Your task to perform on an android device: clear all cookies in the chrome app Image 0: 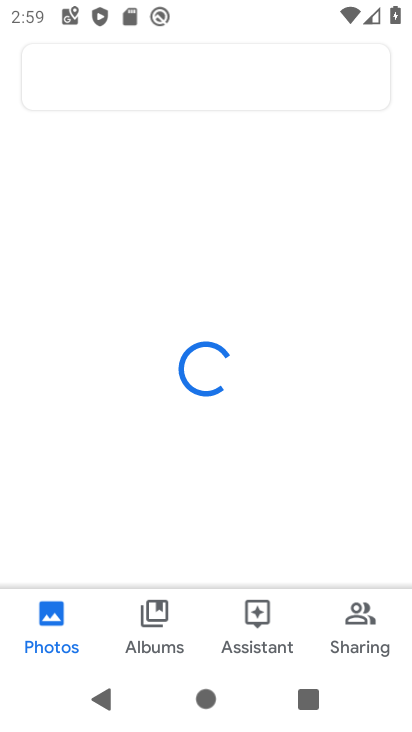
Step 0: press home button
Your task to perform on an android device: clear all cookies in the chrome app Image 1: 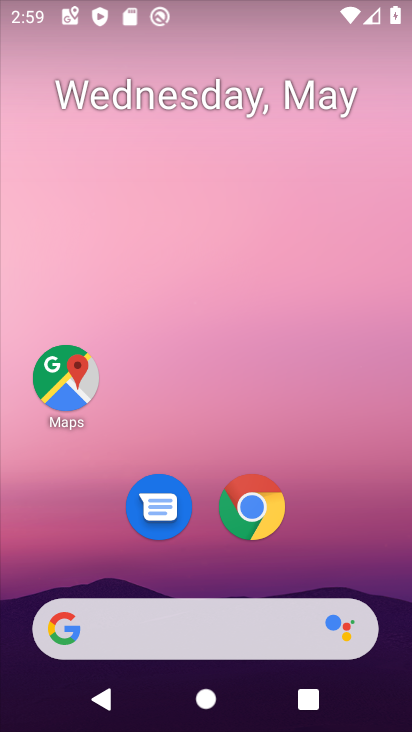
Step 1: click (262, 506)
Your task to perform on an android device: clear all cookies in the chrome app Image 2: 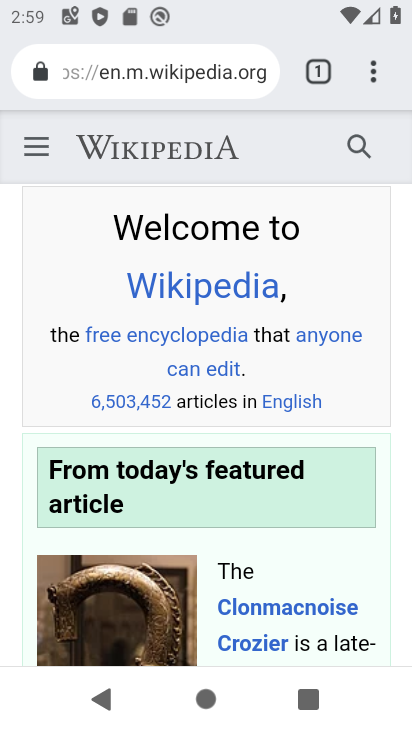
Step 2: click (369, 70)
Your task to perform on an android device: clear all cookies in the chrome app Image 3: 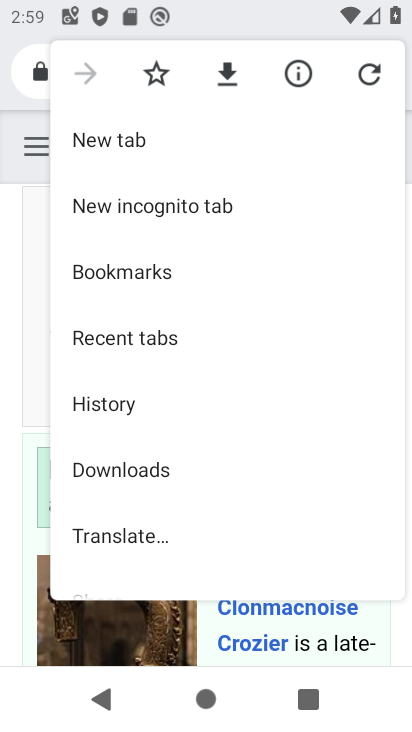
Step 3: drag from (203, 516) to (218, 192)
Your task to perform on an android device: clear all cookies in the chrome app Image 4: 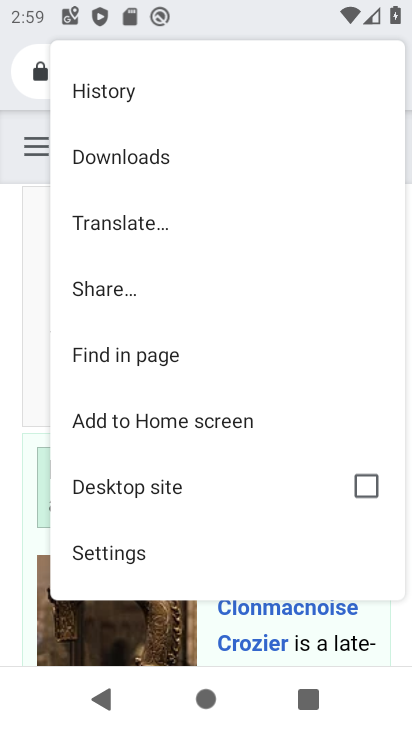
Step 4: click (131, 555)
Your task to perform on an android device: clear all cookies in the chrome app Image 5: 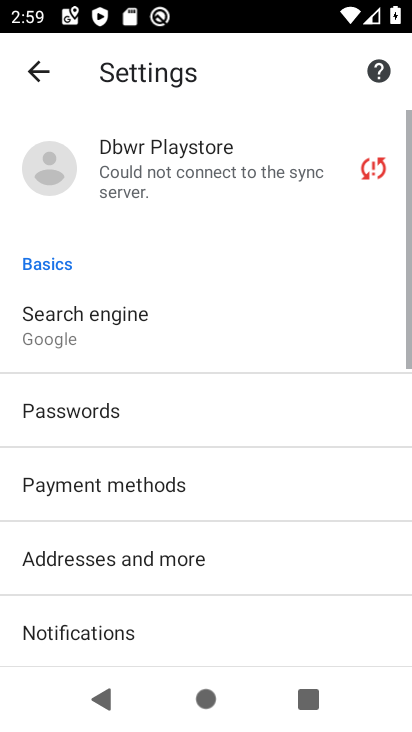
Step 5: drag from (266, 572) to (323, 107)
Your task to perform on an android device: clear all cookies in the chrome app Image 6: 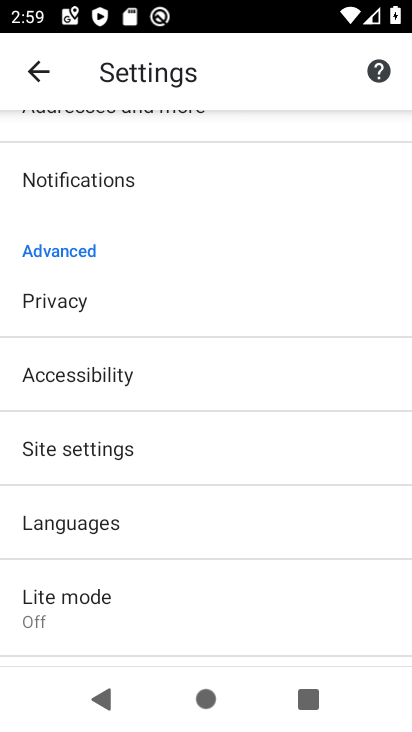
Step 6: click (77, 448)
Your task to perform on an android device: clear all cookies in the chrome app Image 7: 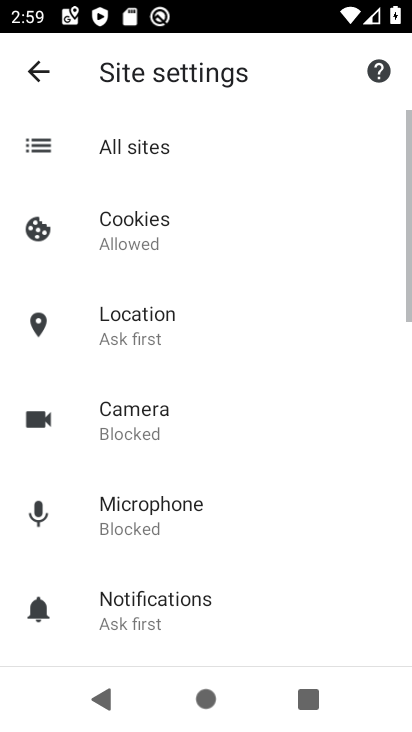
Step 7: click (174, 218)
Your task to perform on an android device: clear all cookies in the chrome app Image 8: 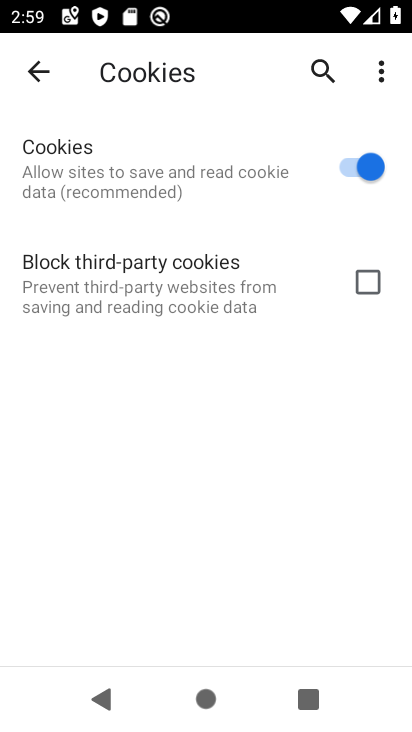
Step 8: task complete